Your task to perform on an android device: toggle pop-ups in chrome Image 0: 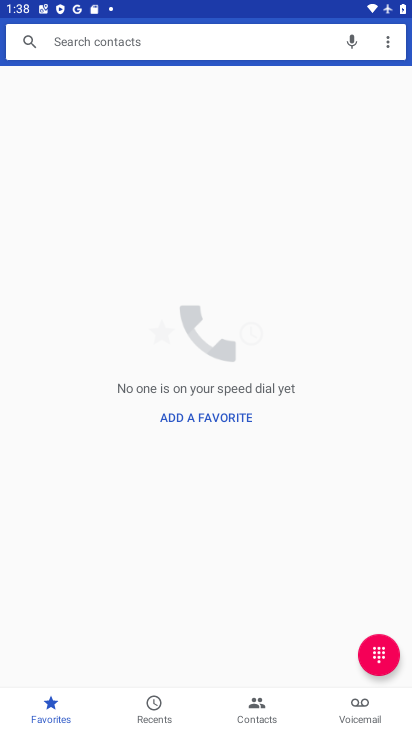
Step 0: press home button
Your task to perform on an android device: toggle pop-ups in chrome Image 1: 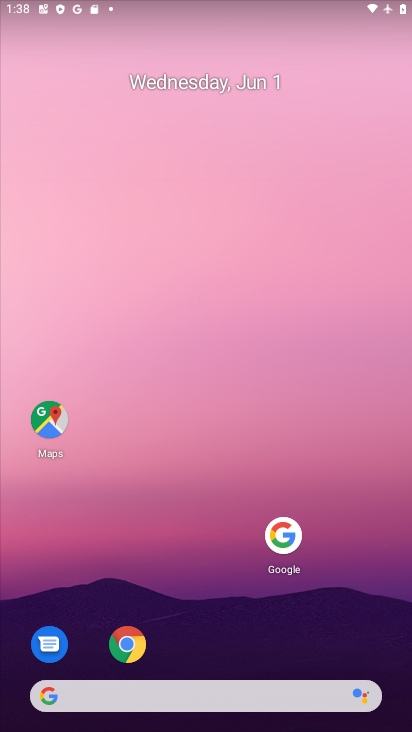
Step 1: click (125, 649)
Your task to perform on an android device: toggle pop-ups in chrome Image 2: 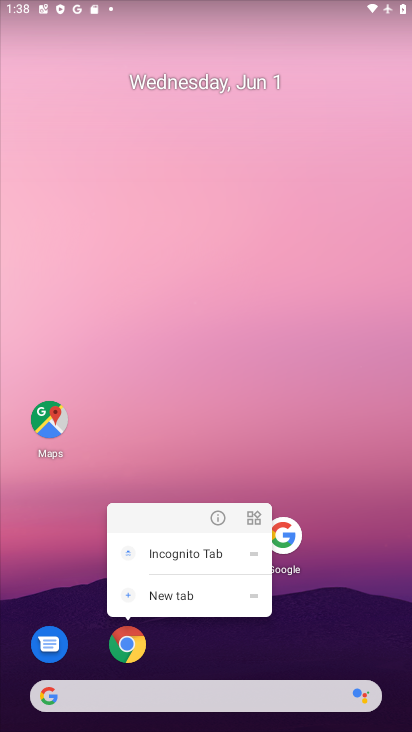
Step 2: click (129, 645)
Your task to perform on an android device: toggle pop-ups in chrome Image 3: 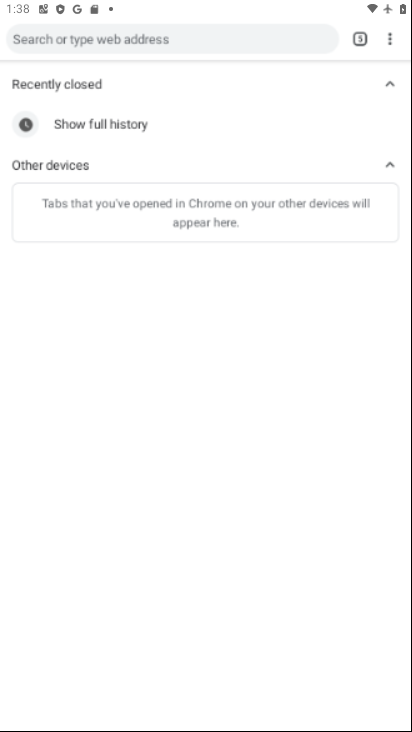
Step 3: drag from (392, 40) to (300, 364)
Your task to perform on an android device: toggle pop-ups in chrome Image 4: 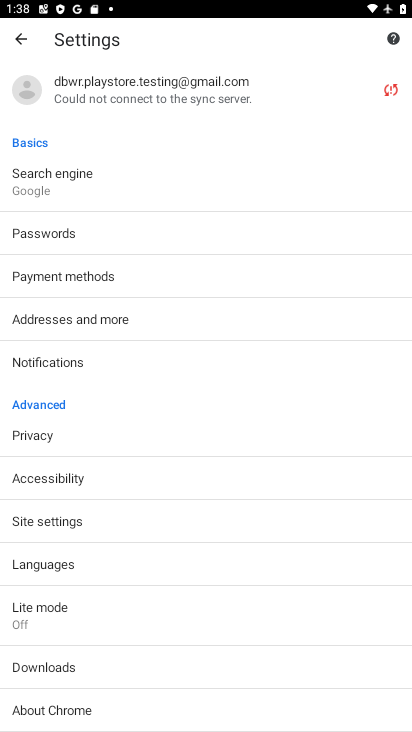
Step 4: click (54, 525)
Your task to perform on an android device: toggle pop-ups in chrome Image 5: 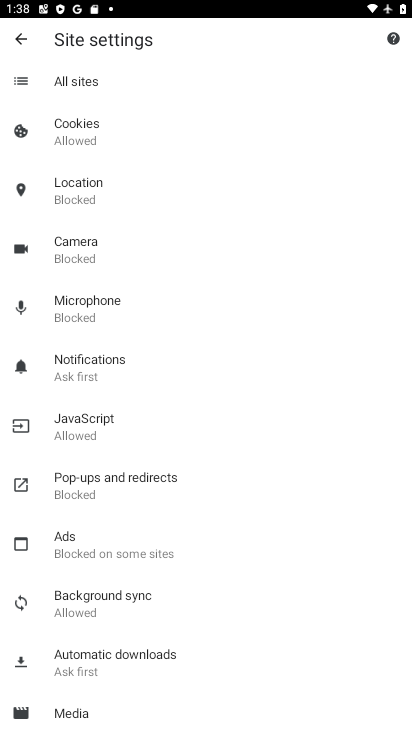
Step 5: click (110, 486)
Your task to perform on an android device: toggle pop-ups in chrome Image 6: 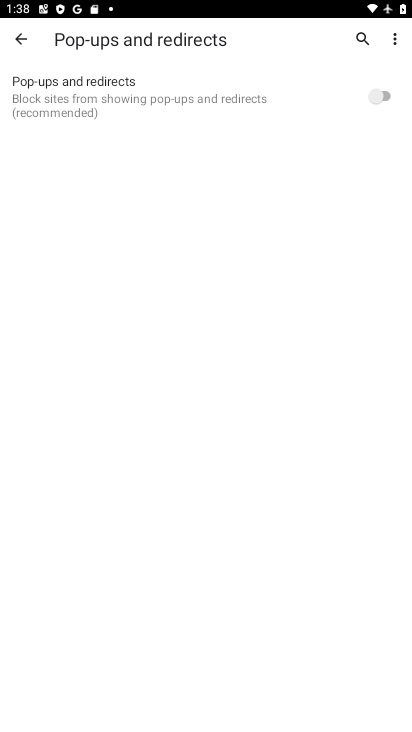
Step 6: click (385, 96)
Your task to perform on an android device: toggle pop-ups in chrome Image 7: 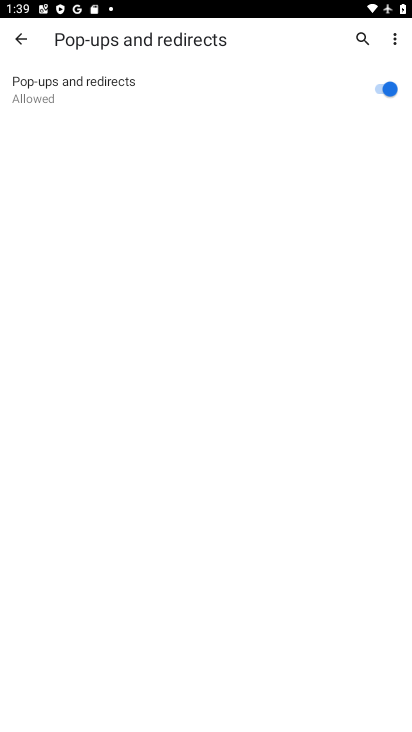
Step 7: task complete